Your task to perform on an android device: What's the weather? Image 0: 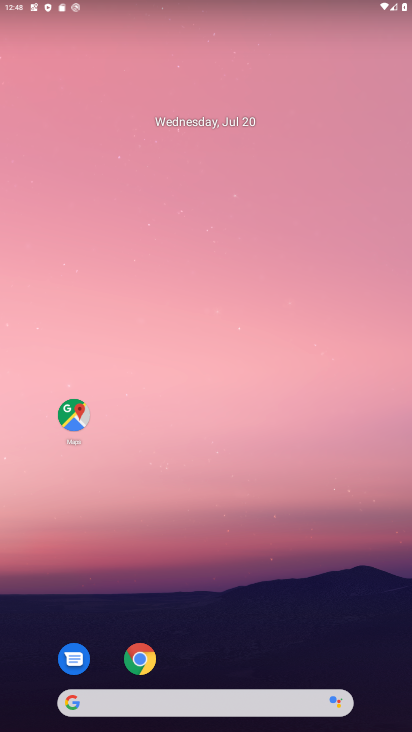
Step 0: drag from (290, 594) to (271, 231)
Your task to perform on an android device: What's the weather? Image 1: 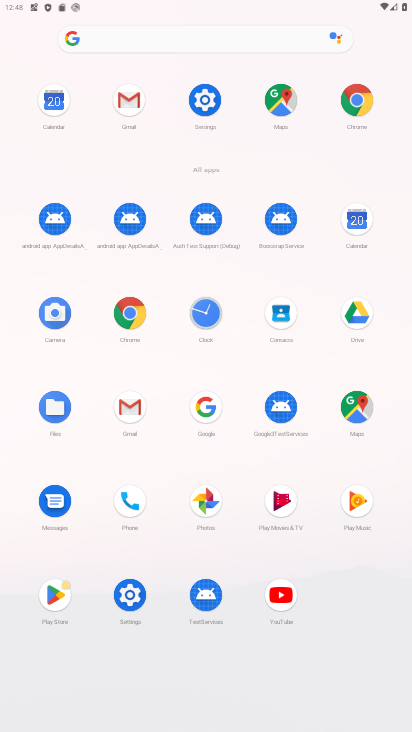
Step 1: press home button
Your task to perform on an android device: What's the weather? Image 2: 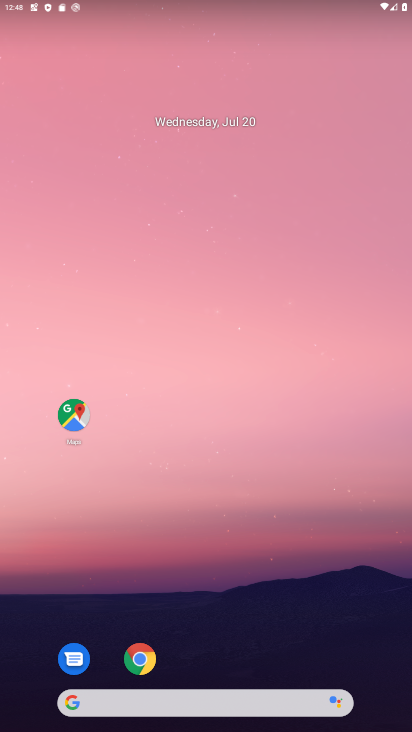
Step 2: drag from (168, 702) to (66, 699)
Your task to perform on an android device: What's the weather? Image 3: 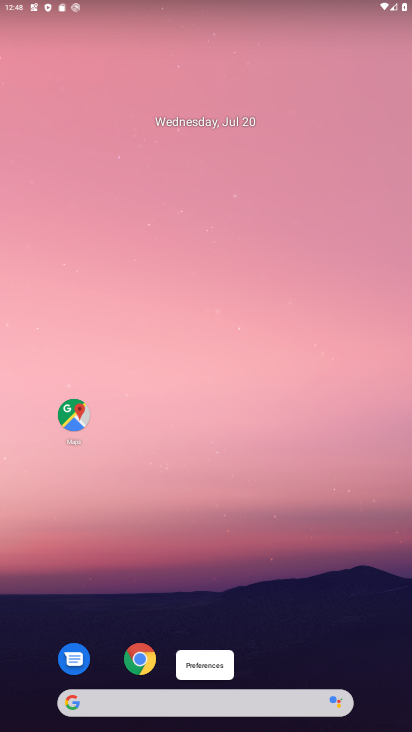
Step 3: click (168, 710)
Your task to perform on an android device: What's the weather? Image 4: 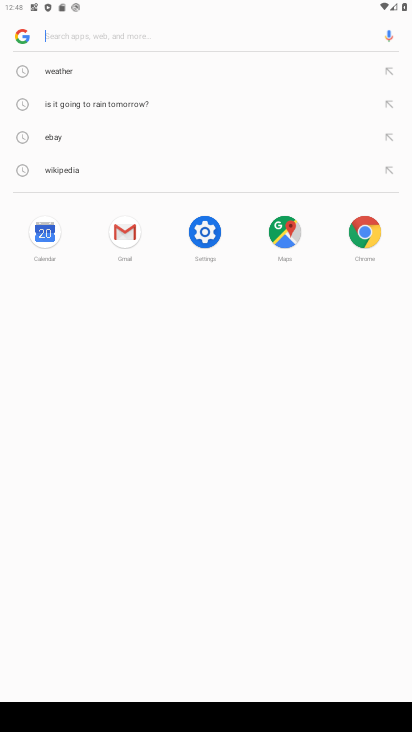
Step 4: type " What's the weather?"
Your task to perform on an android device: What's the weather? Image 5: 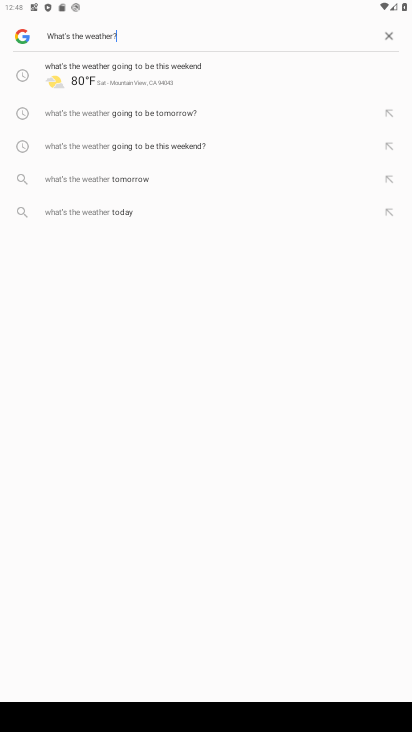
Step 5: press enter
Your task to perform on an android device: What's the weather? Image 6: 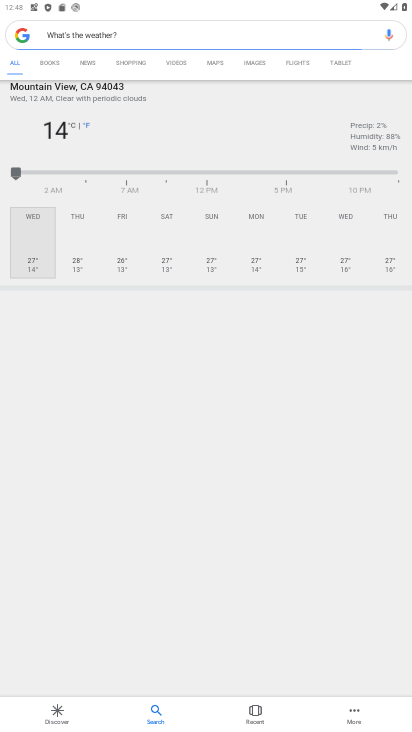
Step 6: task complete